Your task to perform on an android device: Open the Play Movies app and select the watchlist tab. Image 0: 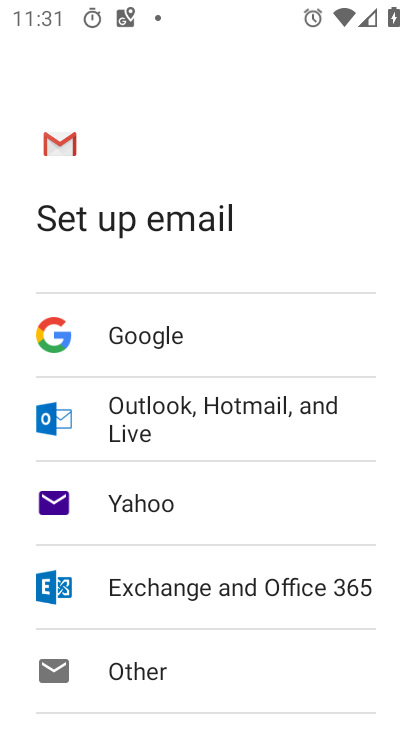
Step 0: press home button
Your task to perform on an android device: Open the Play Movies app and select the watchlist tab. Image 1: 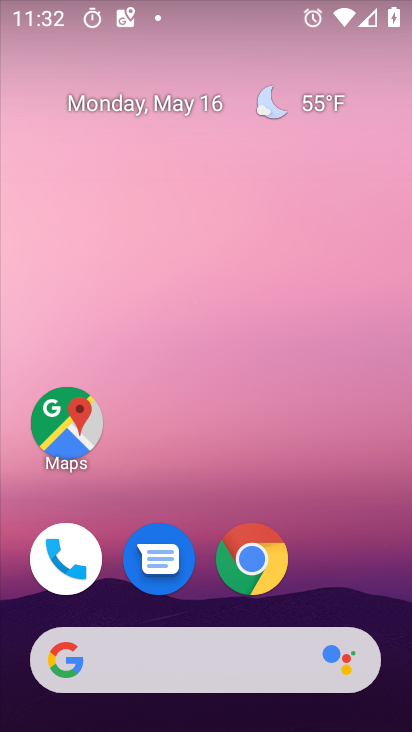
Step 1: drag from (365, 618) to (344, 133)
Your task to perform on an android device: Open the Play Movies app and select the watchlist tab. Image 2: 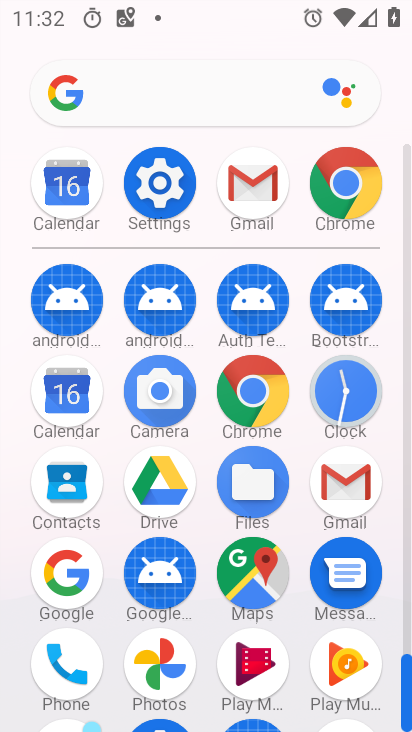
Step 2: drag from (291, 658) to (305, 188)
Your task to perform on an android device: Open the Play Movies app and select the watchlist tab. Image 3: 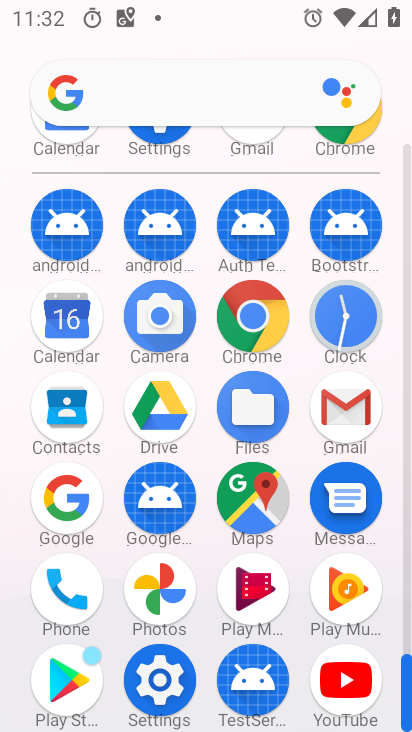
Step 3: click (255, 592)
Your task to perform on an android device: Open the Play Movies app and select the watchlist tab. Image 4: 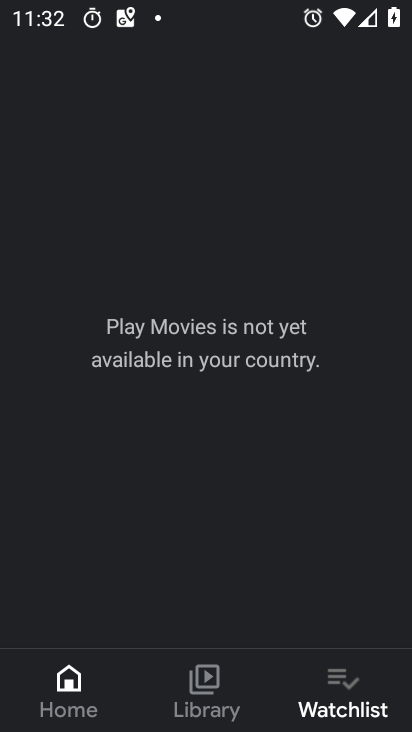
Step 4: click (359, 683)
Your task to perform on an android device: Open the Play Movies app and select the watchlist tab. Image 5: 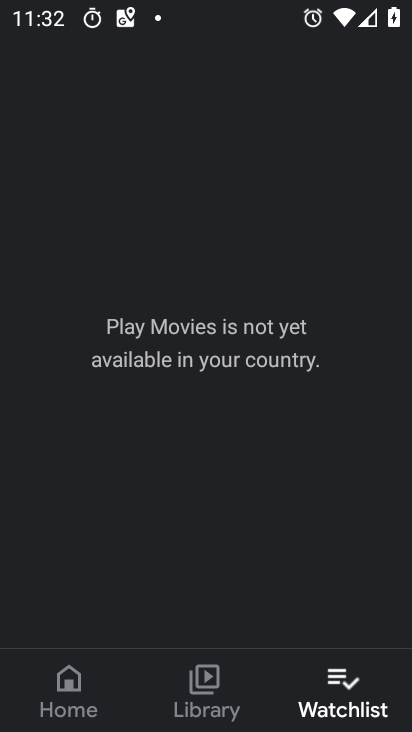
Step 5: task complete